Your task to perform on an android device: Go to ESPN.com Image 0: 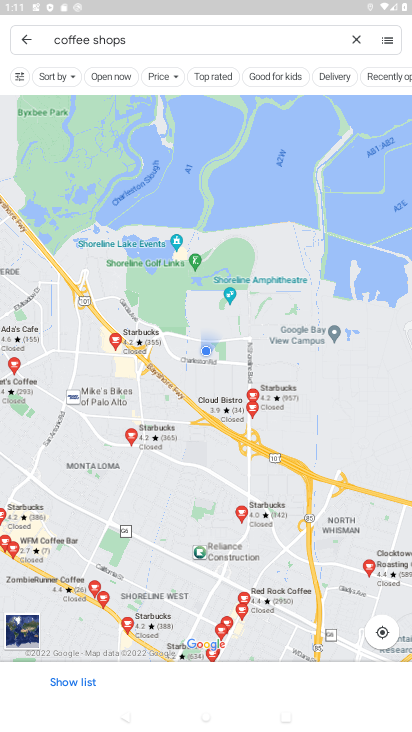
Step 0: press home button
Your task to perform on an android device: Go to ESPN.com Image 1: 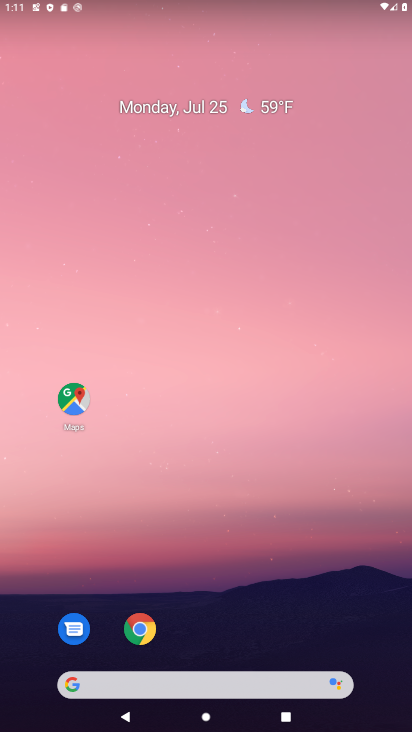
Step 1: click (145, 634)
Your task to perform on an android device: Go to ESPN.com Image 2: 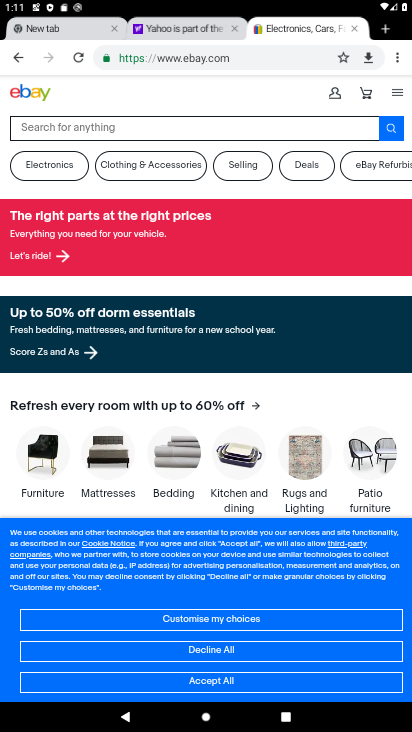
Step 2: click (385, 30)
Your task to perform on an android device: Go to ESPN.com Image 3: 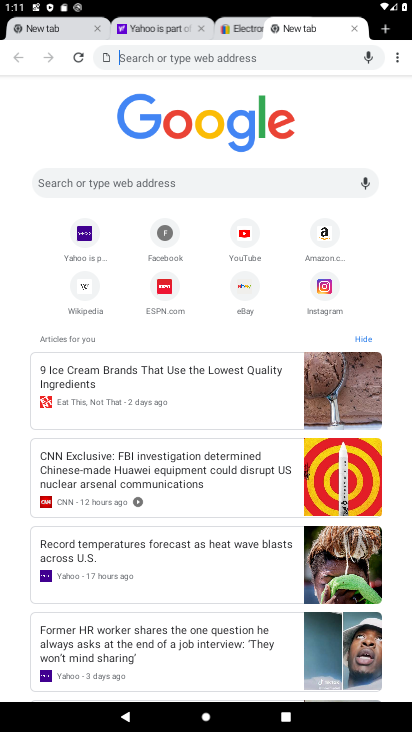
Step 3: click (165, 291)
Your task to perform on an android device: Go to ESPN.com Image 4: 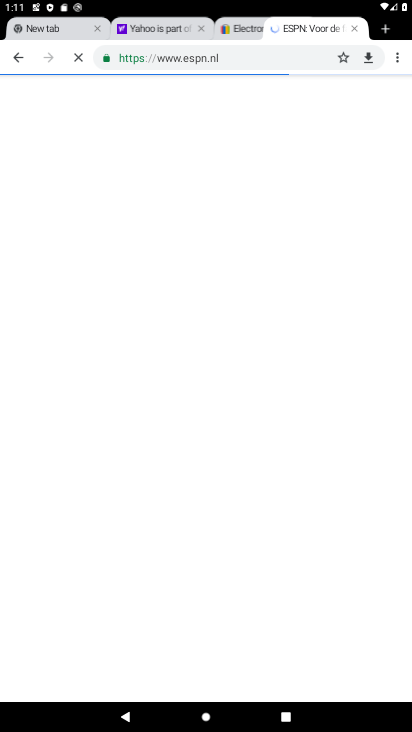
Step 4: task complete